Your task to perform on an android device: Open the calendar and show me this week's events? Image 0: 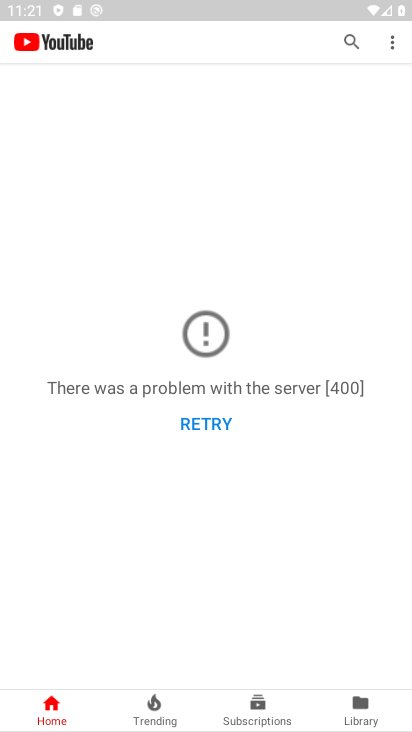
Step 0: press back button
Your task to perform on an android device: Open the calendar and show me this week's events? Image 1: 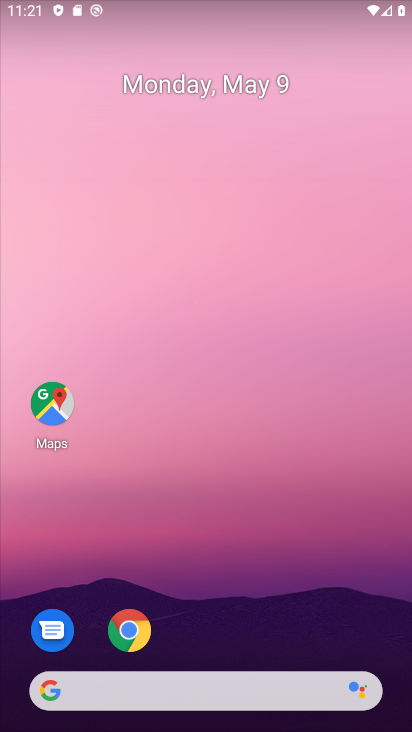
Step 1: drag from (242, 591) to (166, 57)
Your task to perform on an android device: Open the calendar and show me this week's events? Image 2: 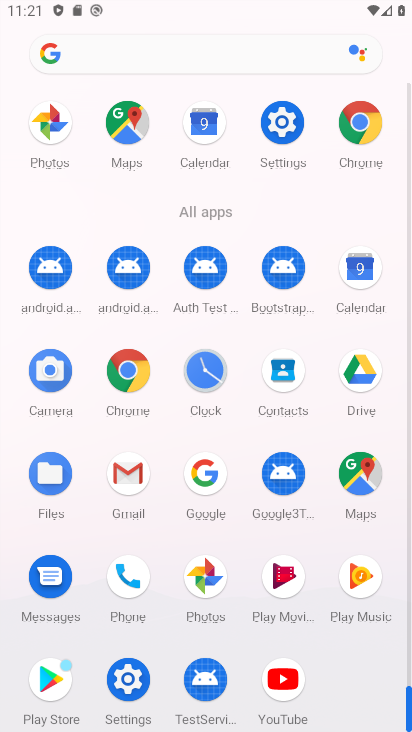
Step 2: drag from (8, 576) to (5, 220)
Your task to perform on an android device: Open the calendar and show me this week's events? Image 3: 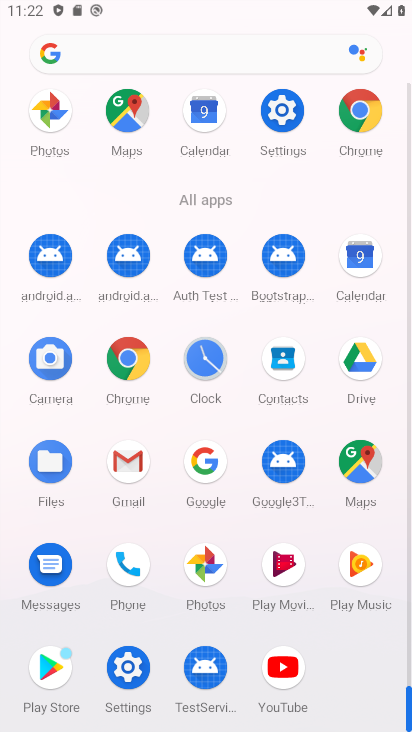
Step 3: click (351, 257)
Your task to perform on an android device: Open the calendar and show me this week's events? Image 4: 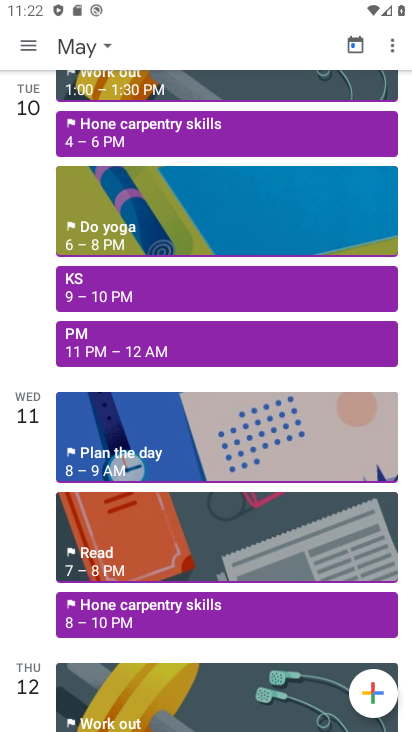
Step 4: drag from (258, 528) to (221, 137)
Your task to perform on an android device: Open the calendar and show me this week's events? Image 5: 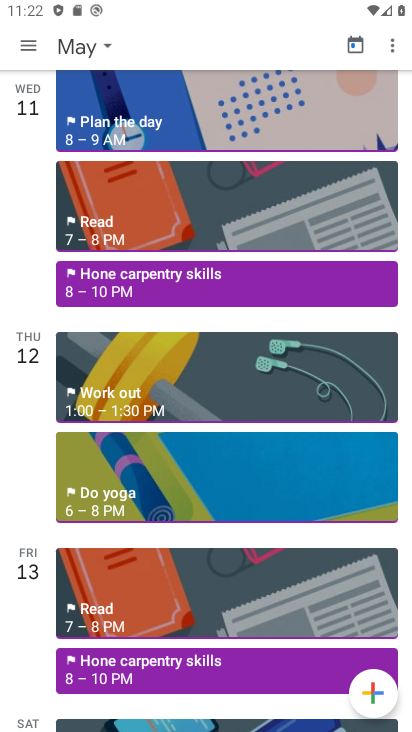
Step 5: drag from (158, 551) to (142, 457)
Your task to perform on an android device: Open the calendar and show me this week's events? Image 6: 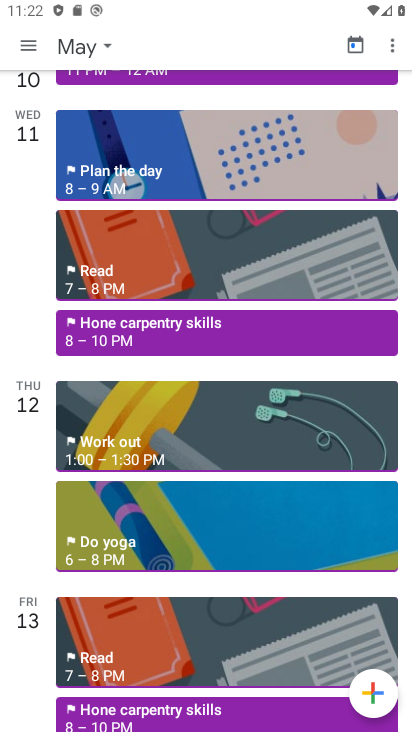
Step 6: click (82, 42)
Your task to perform on an android device: Open the calendar and show me this week's events? Image 7: 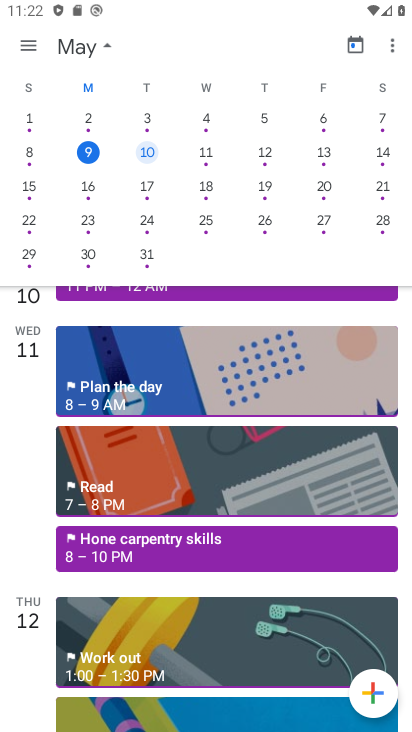
Step 7: click (28, 43)
Your task to perform on an android device: Open the calendar and show me this week's events? Image 8: 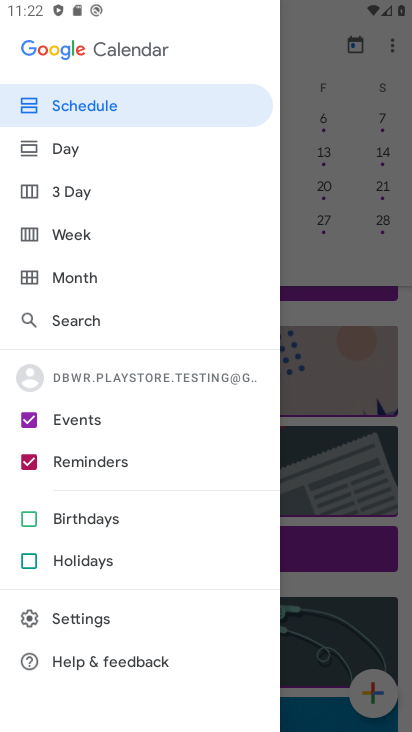
Step 8: click (81, 234)
Your task to perform on an android device: Open the calendar and show me this week's events? Image 9: 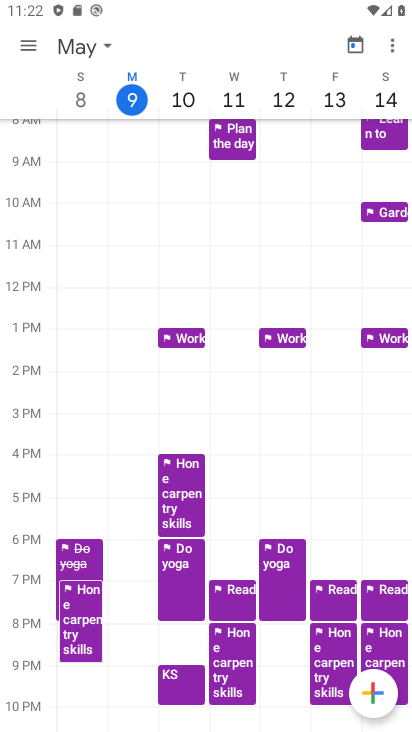
Step 9: task complete